Your task to perform on an android device: delete the emails in spam in the gmail app Image 0: 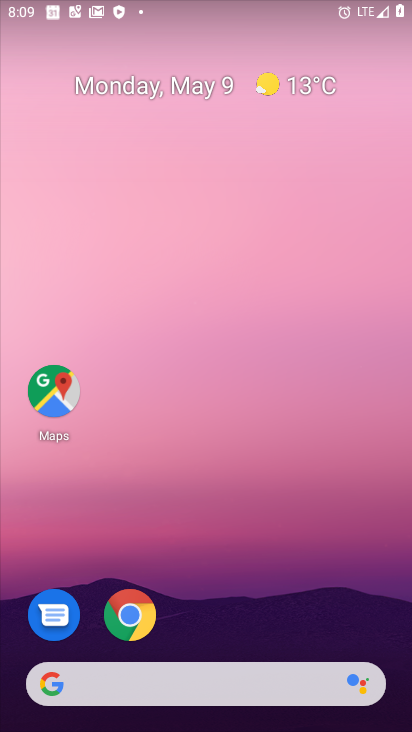
Step 0: drag from (245, 631) to (289, 156)
Your task to perform on an android device: delete the emails in spam in the gmail app Image 1: 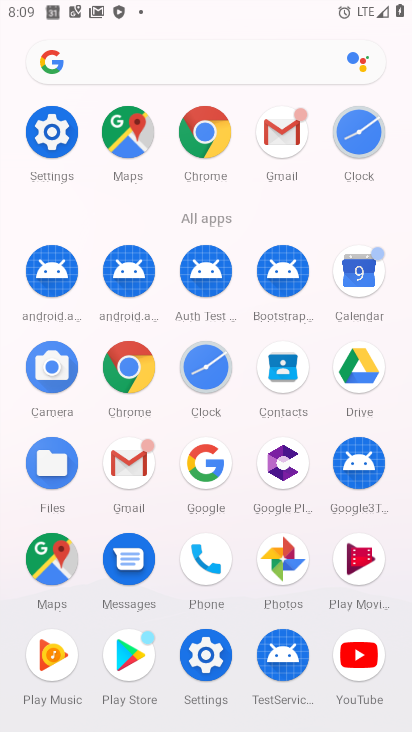
Step 1: click (287, 142)
Your task to perform on an android device: delete the emails in spam in the gmail app Image 2: 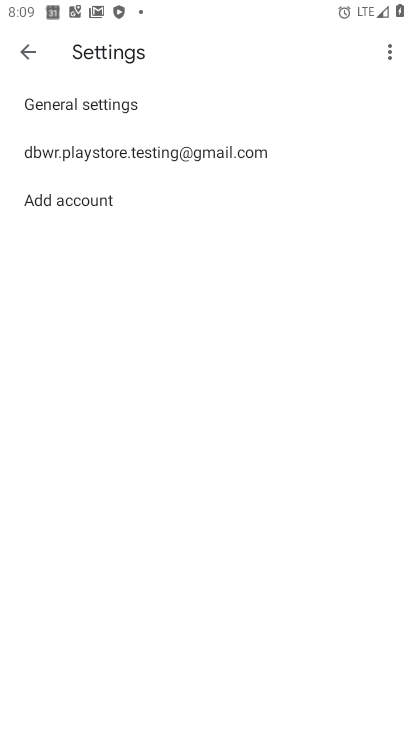
Step 2: click (26, 42)
Your task to perform on an android device: delete the emails in spam in the gmail app Image 3: 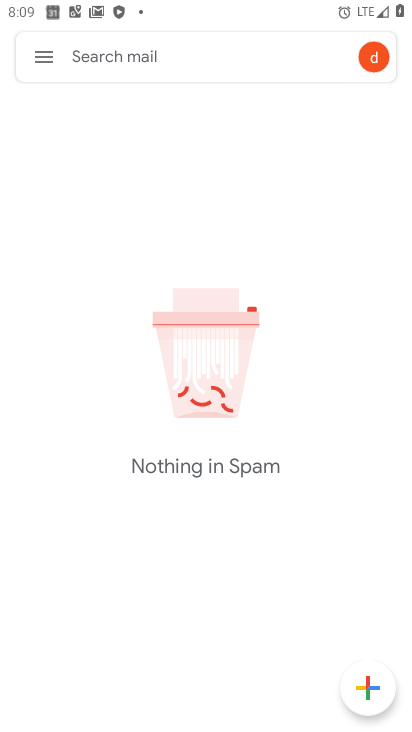
Step 3: click (26, 42)
Your task to perform on an android device: delete the emails in spam in the gmail app Image 4: 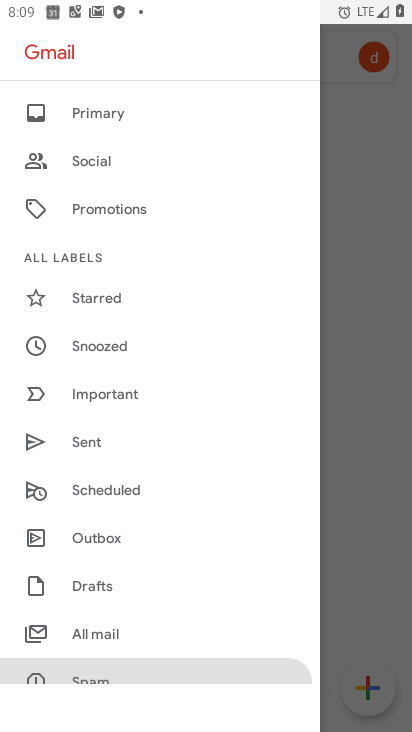
Step 4: click (153, 674)
Your task to perform on an android device: delete the emails in spam in the gmail app Image 5: 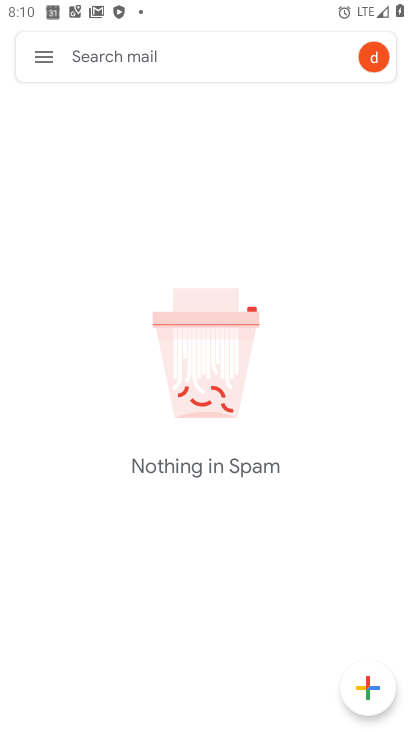
Step 5: task complete